Your task to perform on an android device: choose inbox layout in the gmail app Image 0: 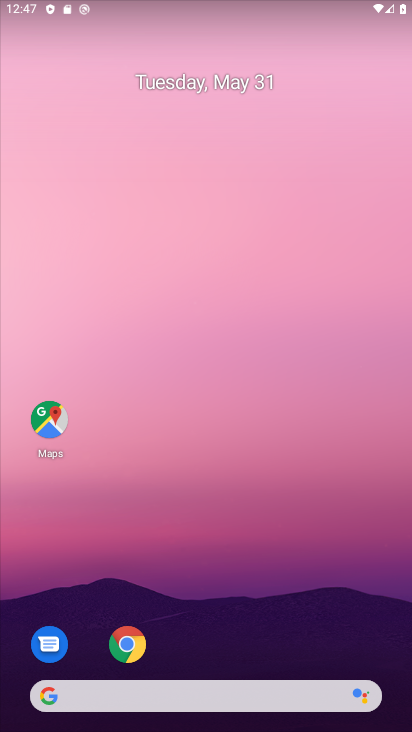
Step 0: drag from (220, 638) to (230, 274)
Your task to perform on an android device: choose inbox layout in the gmail app Image 1: 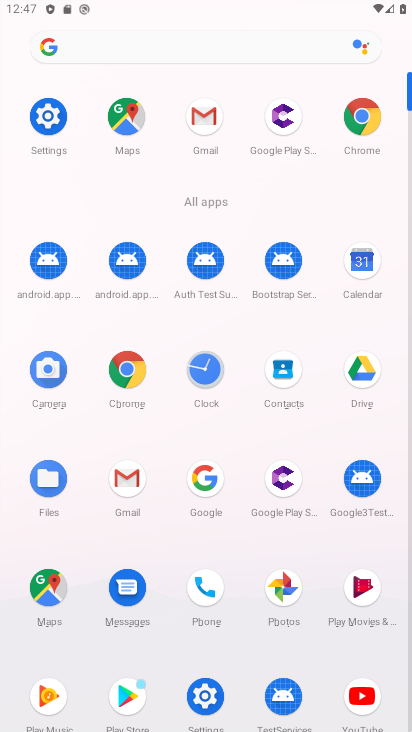
Step 1: click (203, 126)
Your task to perform on an android device: choose inbox layout in the gmail app Image 2: 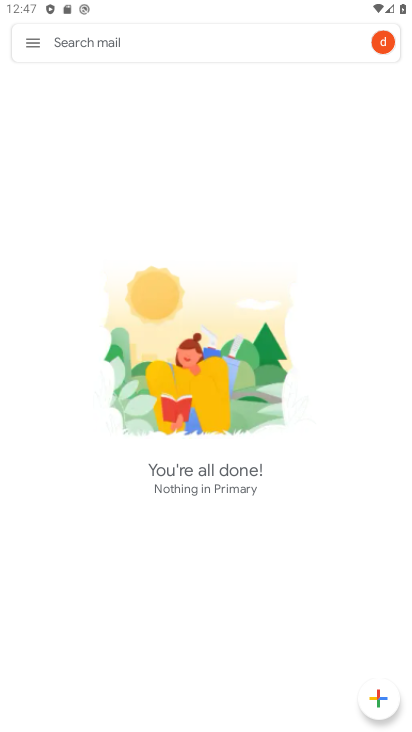
Step 2: click (23, 51)
Your task to perform on an android device: choose inbox layout in the gmail app Image 3: 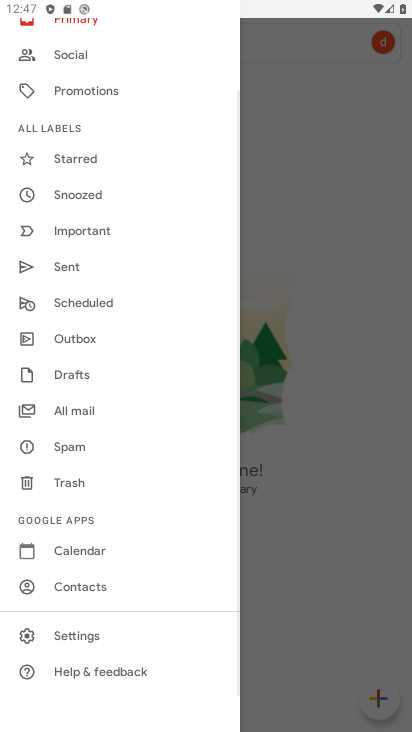
Step 3: click (80, 645)
Your task to perform on an android device: choose inbox layout in the gmail app Image 4: 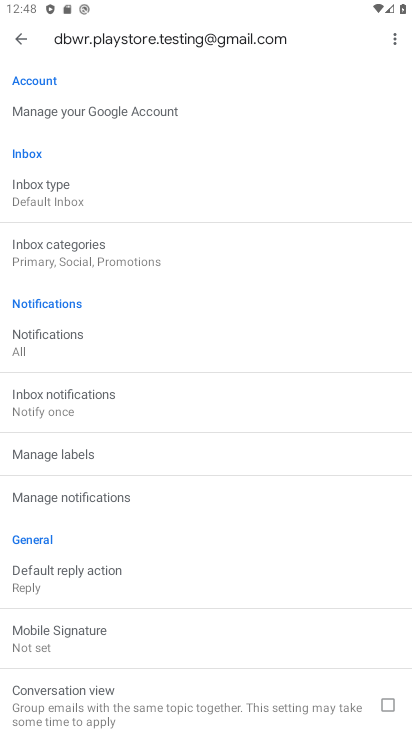
Step 4: click (46, 200)
Your task to perform on an android device: choose inbox layout in the gmail app Image 5: 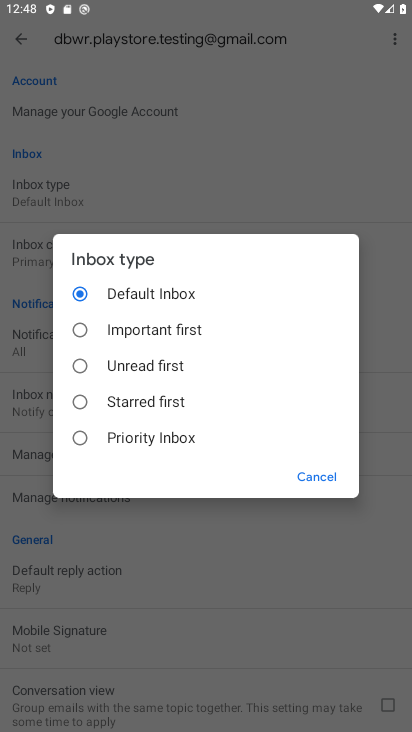
Step 5: click (96, 434)
Your task to perform on an android device: choose inbox layout in the gmail app Image 6: 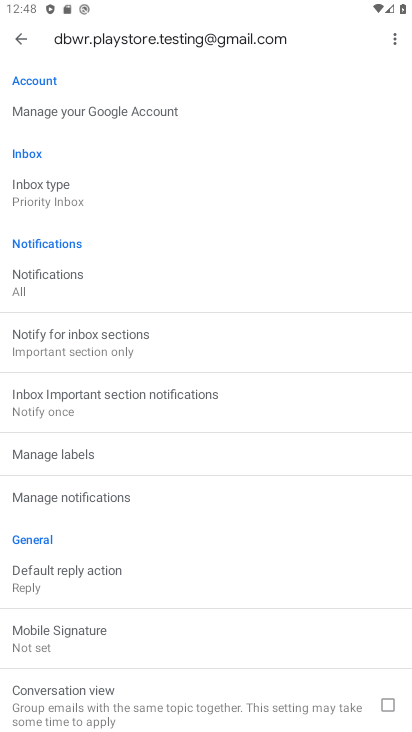
Step 6: task complete